Your task to perform on an android device: check google app version Image 0: 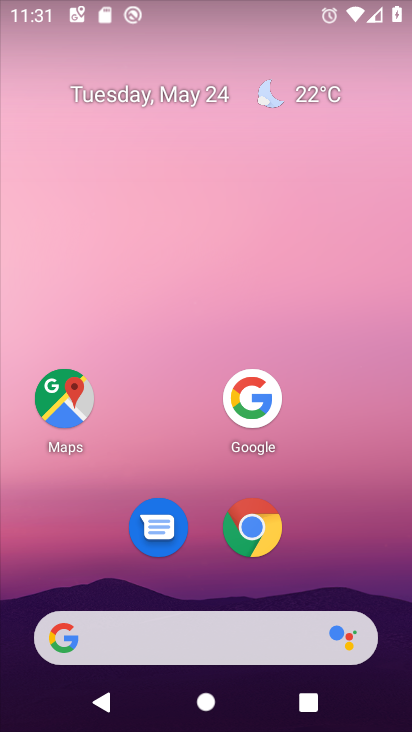
Step 0: press home button
Your task to perform on an android device: check google app version Image 1: 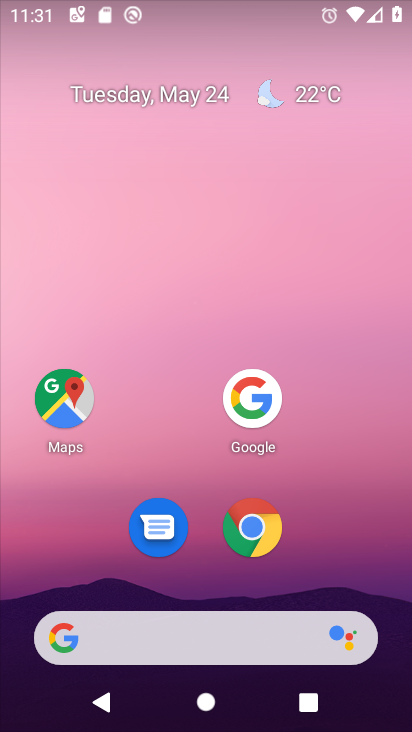
Step 1: drag from (259, 402) to (279, 371)
Your task to perform on an android device: check google app version Image 2: 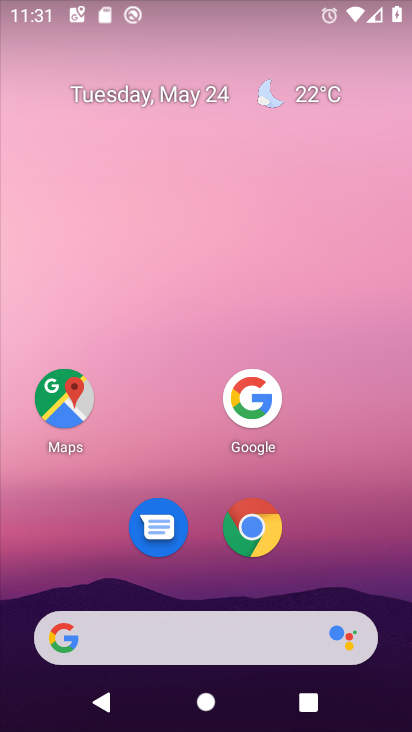
Step 2: click (193, 190)
Your task to perform on an android device: check google app version Image 3: 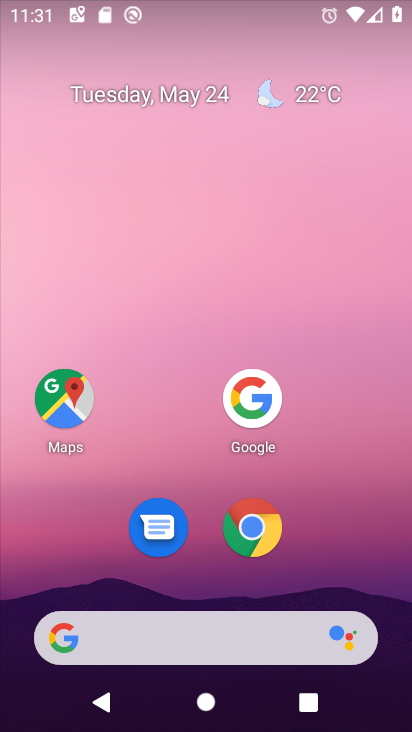
Step 3: click (256, 396)
Your task to perform on an android device: check google app version Image 4: 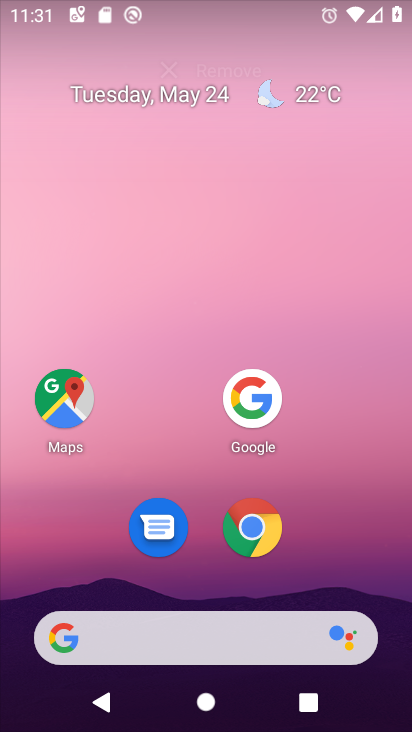
Step 4: click (190, 178)
Your task to perform on an android device: check google app version Image 5: 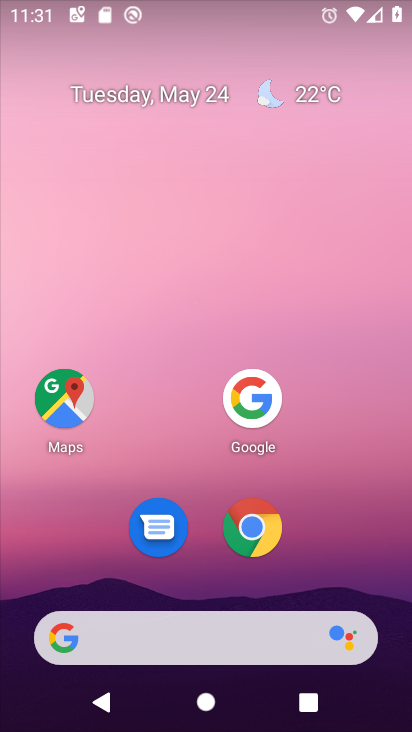
Step 5: click (243, 380)
Your task to perform on an android device: check google app version Image 6: 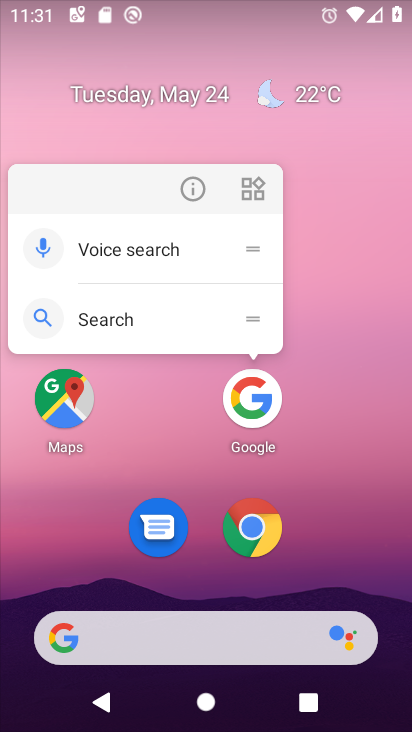
Step 6: click (197, 189)
Your task to perform on an android device: check google app version Image 7: 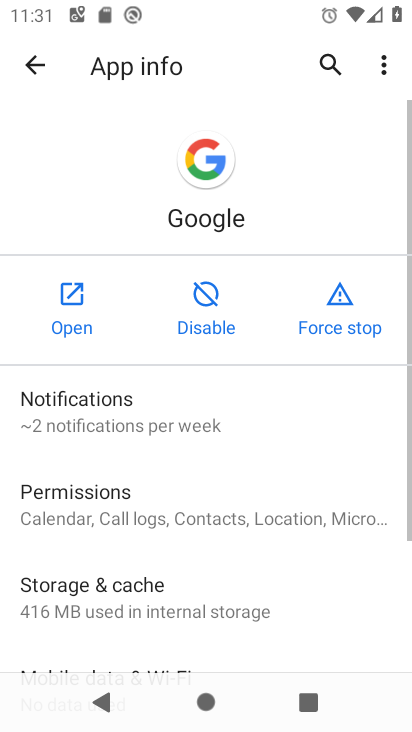
Step 7: drag from (263, 631) to (343, 92)
Your task to perform on an android device: check google app version Image 8: 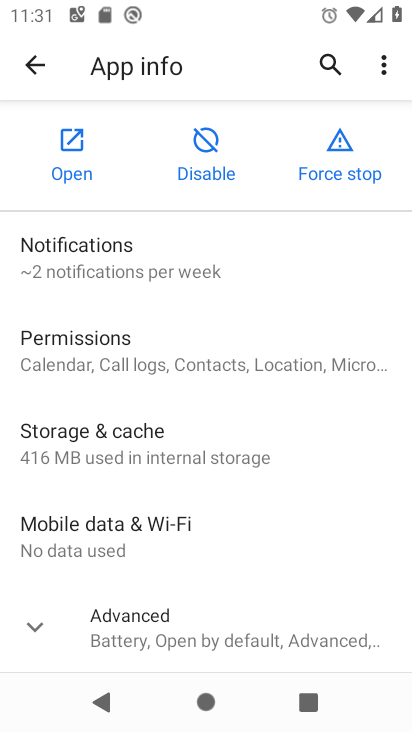
Step 8: click (162, 634)
Your task to perform on an android device: check google app version Image 9: 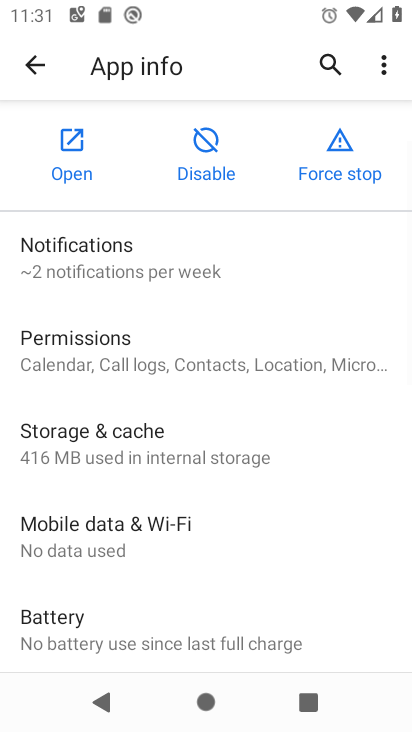
Step 9: task complete